Your task to perform on an android device: Open ESPN.com Image 0: 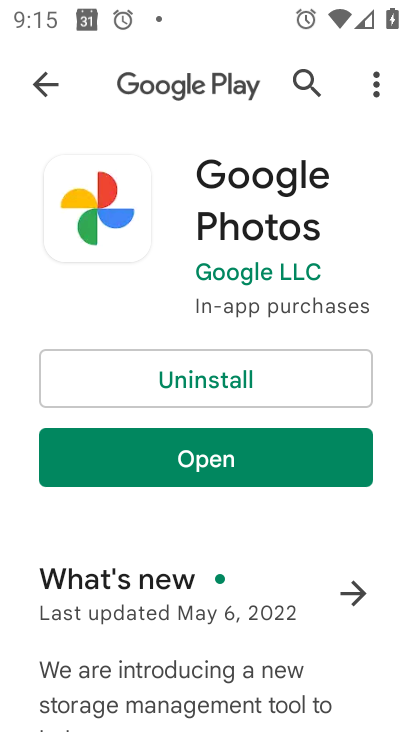
Step 0: press back button
Your task to perform on an android device: Open ESPN.com Image 1: 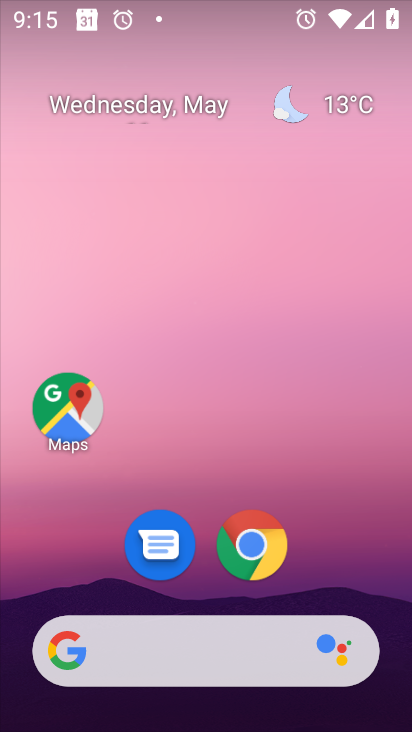
Step 1: drag from (332, 566) to (244, 37)
Your task to perform on an android device: Open ESPN.com Image 2: 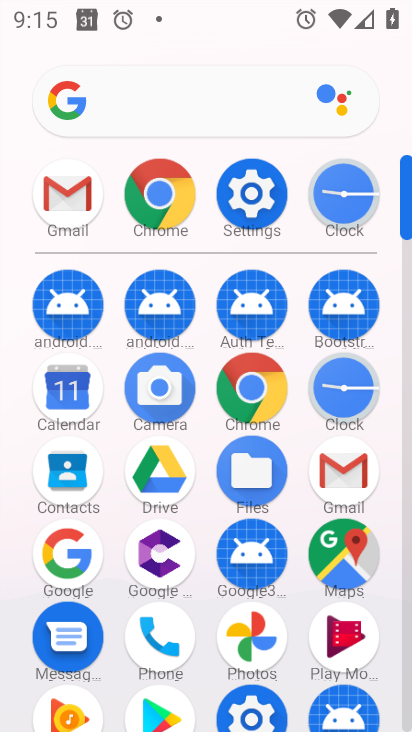
Step 2: click (156, 195)
Your task to perform on an android device: Open ESPN.com Image 3: 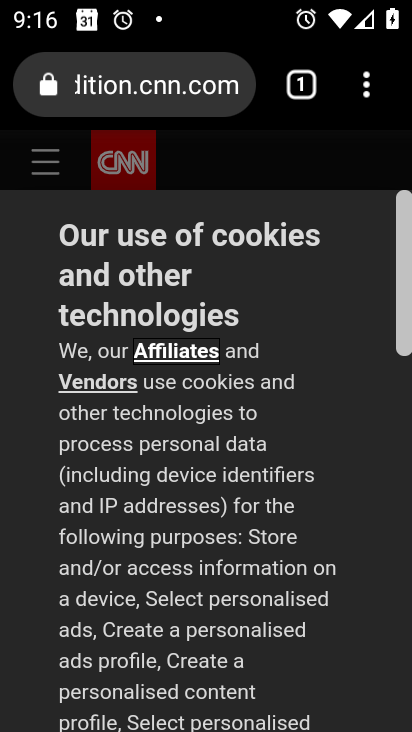
Step 3: click (158, 89)
Your task to perform on an android device: Open ESPN.com Image 4: 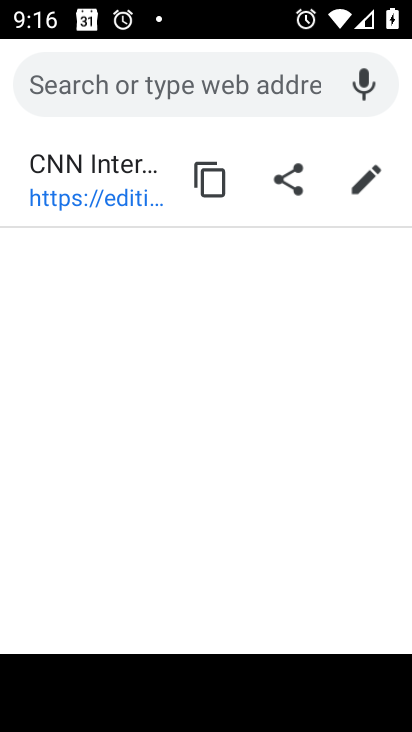
Step 4: type "ESPN.com"
Your task to perform on an android device: Open ESPN.com Image 5: 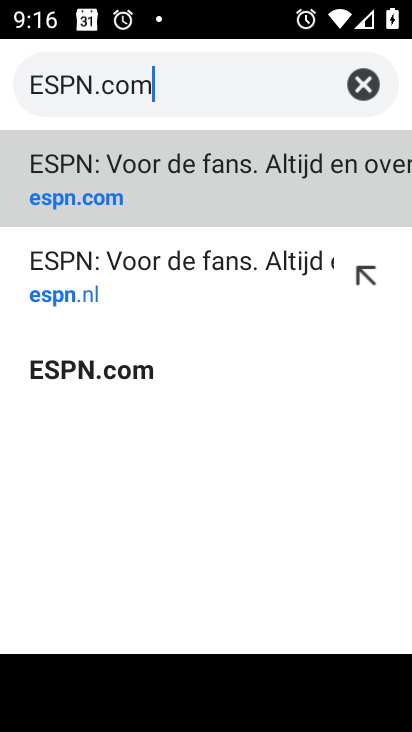
Step 5: type ""
Your task to perform on an android device: Open ESPN.com Image 6: 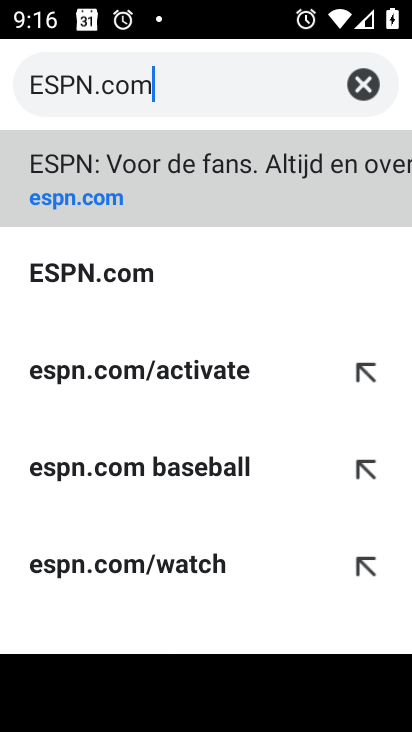
Step 6: click (138, 188)
Your task to perform on an android device: Open ESPN.com Image 7: 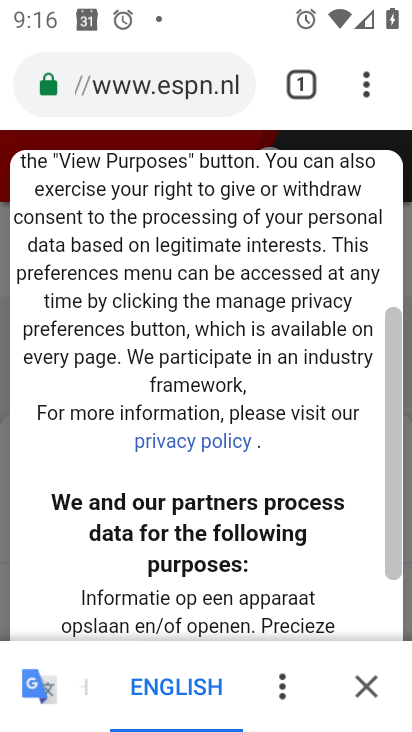
Step 7: task complete